Your task to perform on an android device: Find coffee shops on Maps Image 0: 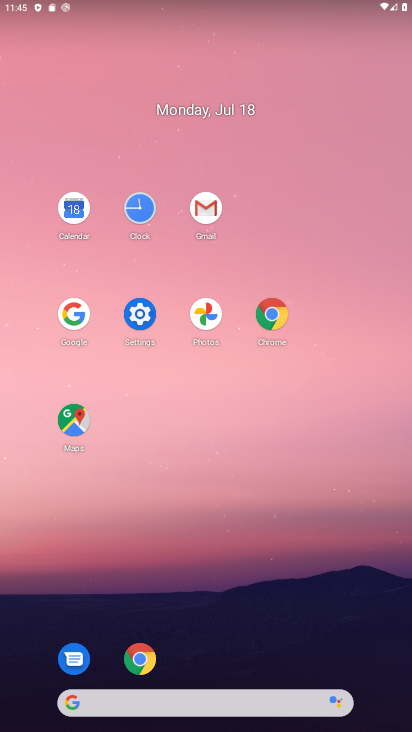
Step 0: click (78, 414)
Your task to perform on an android device: Find coffee shops on Maps Image 1: 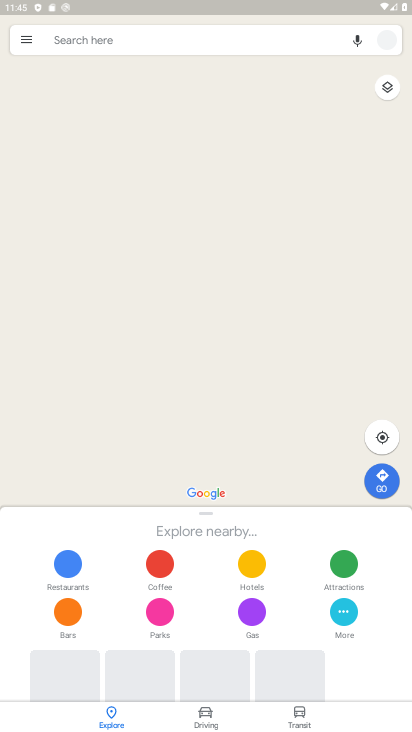
Step 1: click (220, 34)
Your task to perform on an android device: Find coffee shops on Maps Image 2: 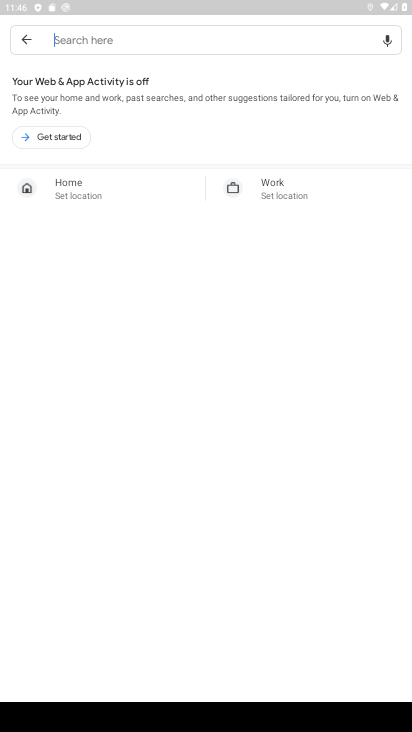
Step 2: type "coffee shops"
Your task to perform on an android device: Find coffee shops on Maps Image 3: 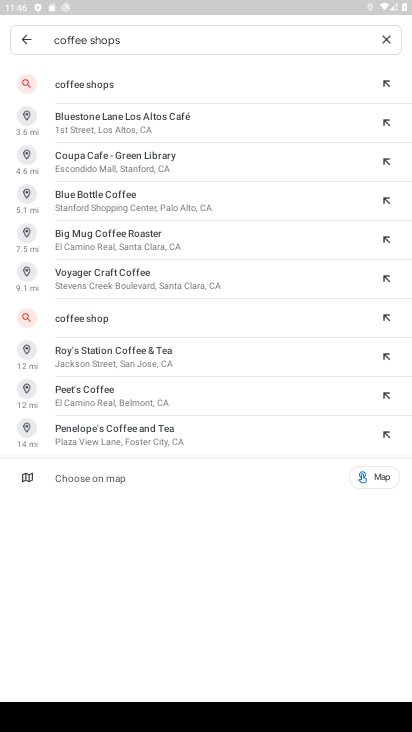
Step 3: click (128, 75)
Your task to perform on an android device: Find coffee shops on Maps Image 4: 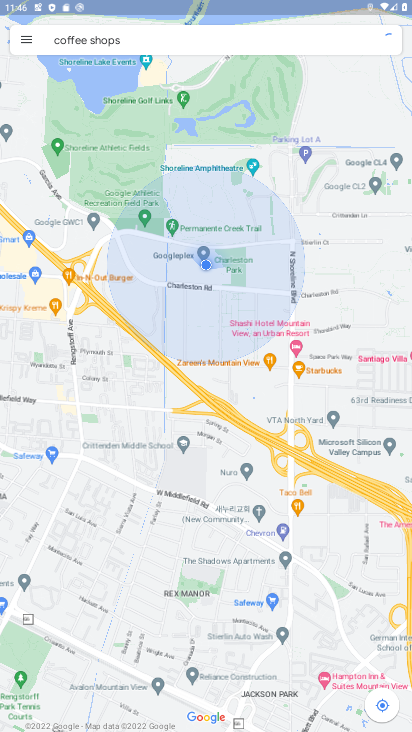
Step 4: task complete